Your task to perform on an android device: change the clock style Image 0: 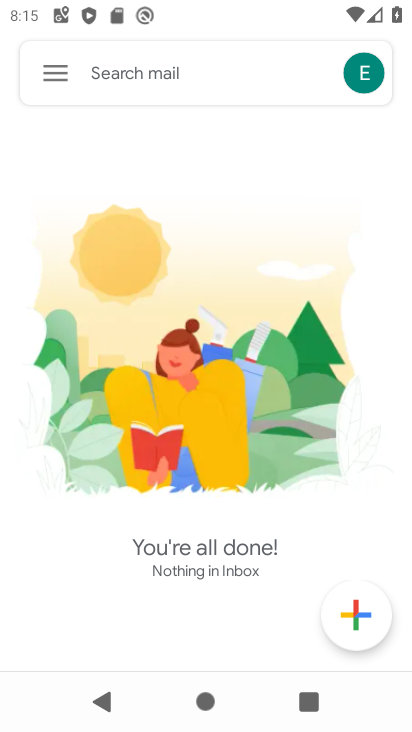
Step 0: press home button
Your task to perform on an android device: change the clock style Image 1: 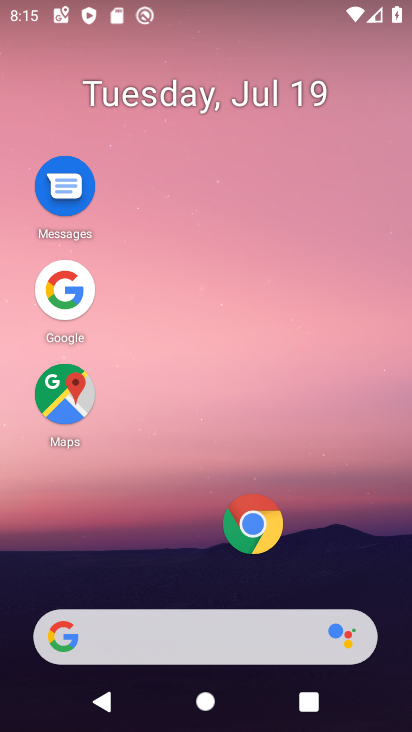
Step 1: drag from (177, 595) to (189, 55)
Your task to perform on an android device: change the clock style Image 2: 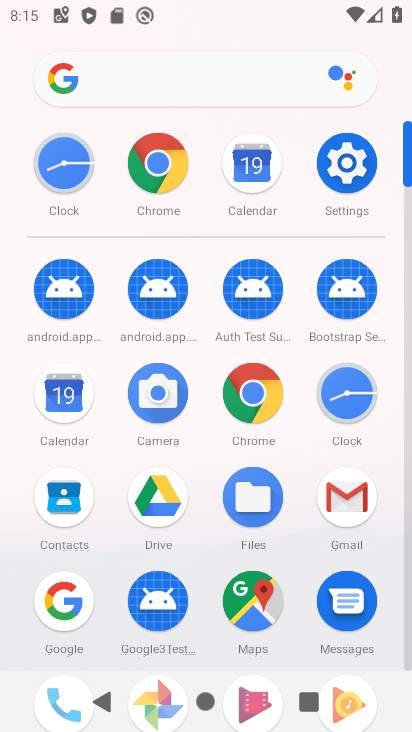
Step 2: click (59, 173)
Your task to perform on an android device: change the clock style Image 3: 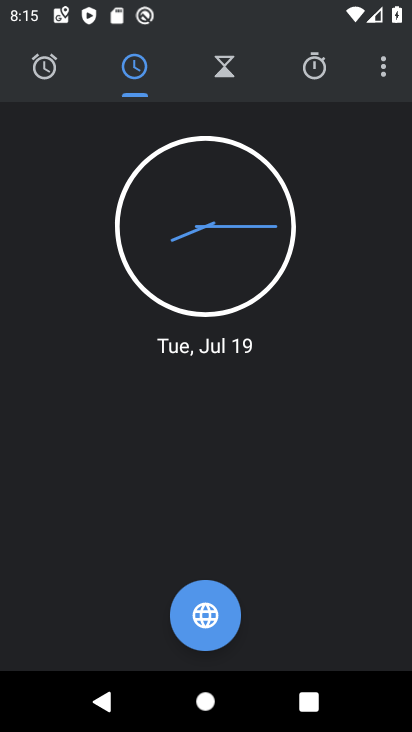
Step 3: click (392, 76)
Your task to perform on an android device: change the clock style Image 4: 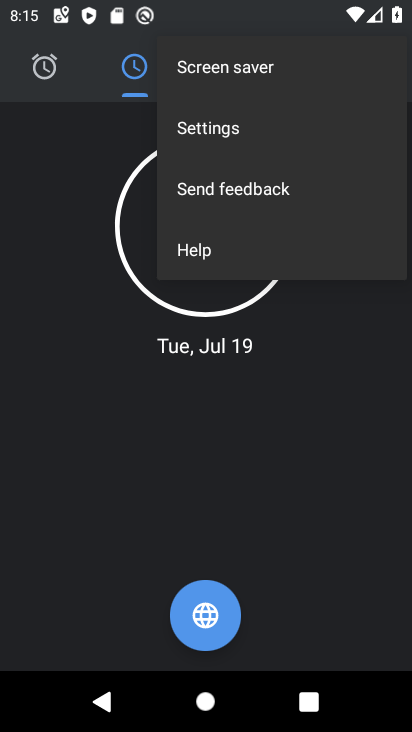
Step 4: click (188, 129)
Your task to perform on an android device: change the clock style Image 5: 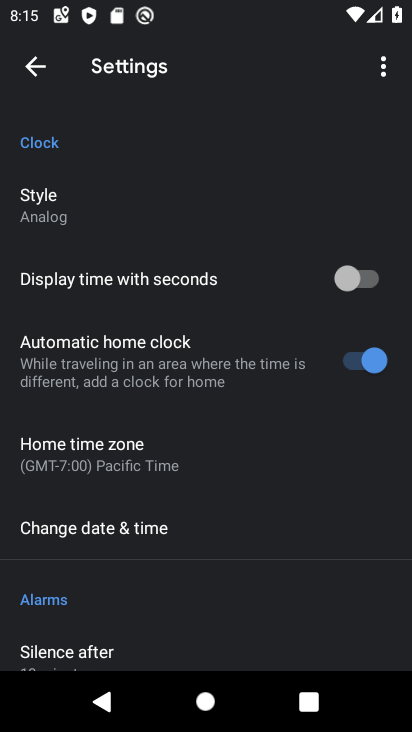
Step 5: click (51, 211)
Your task to perform on an android device: change the clock style Image 6: 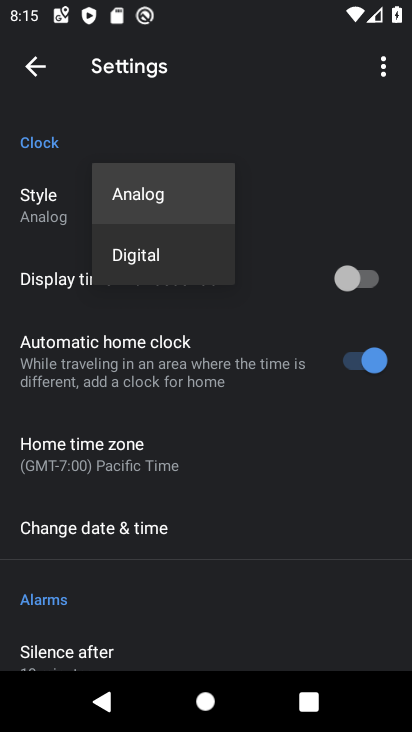
Step 6: click (116, 247)
Your task to perform on an android device: change the clock style Image 7: 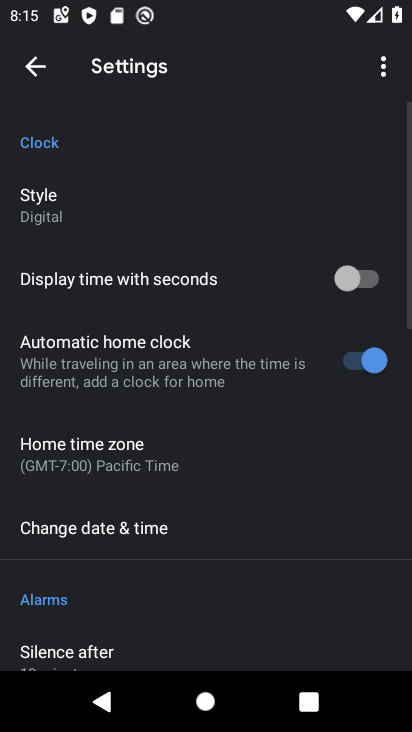
Step 7: task complete